Your task to perform on an android device: Search for sushi restaurants on Maps Image 0: 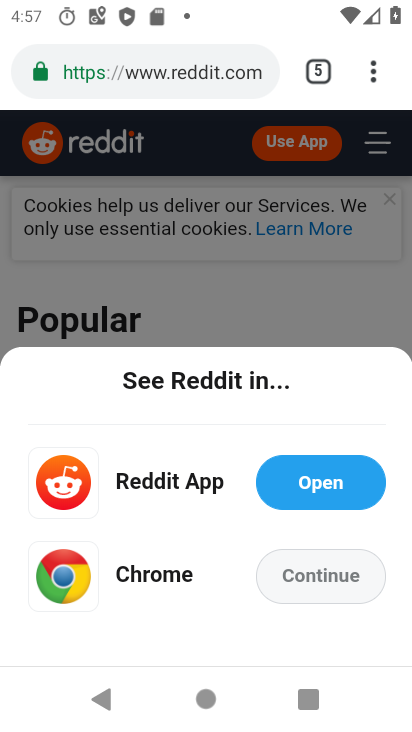
Step 0: press home button
Your task to perform on an android device: Search for sushi restaurants on Maps Image 1: 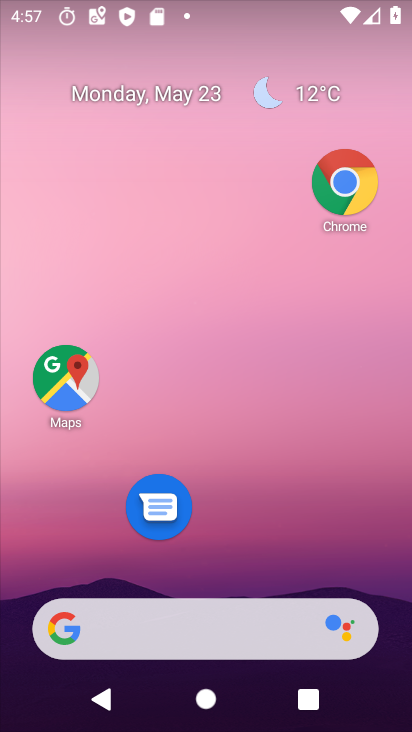
Step 1: click (68, 358)
Your task to perform on an android device: Search for sushi restaurants on Maps Image 2: 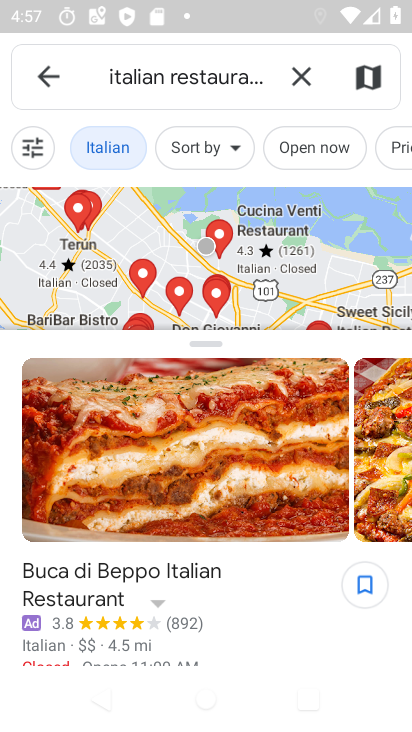
Step 2: click (307, 78)
Your task to perform on an android device: Search for sushi restaurants on Maps Image 3: 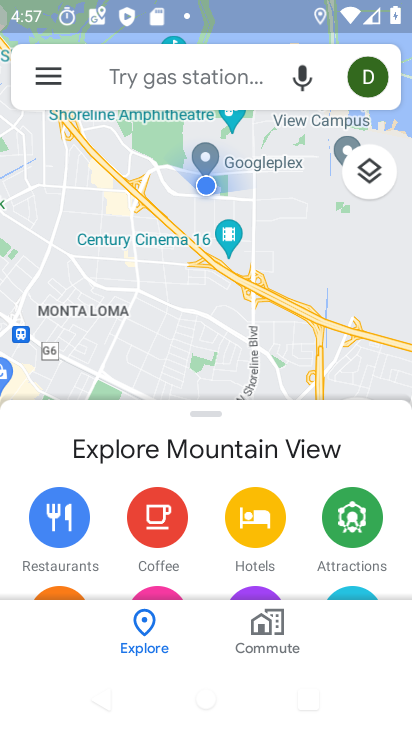
Step 3: click (160, 82)
Your task to perform on an android device: Search for sushi restaurants on Maps Image 4: 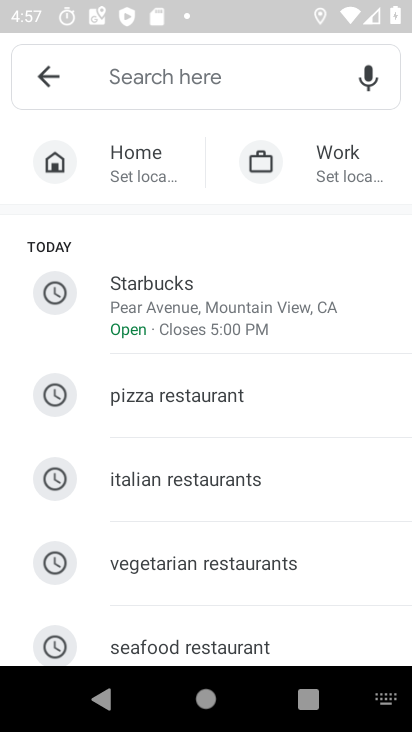
Step 4: type "sushi restaurant"
Your task to perform on an android device: Search for sushi restaurants on Maps Image 5: 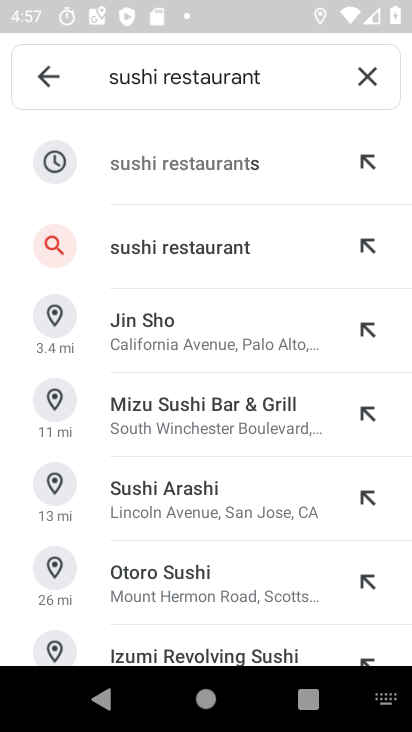
Step 5: click (194, 254)
Your task to perform on an android device: Search for sushi restaurants on Maps Image 6: 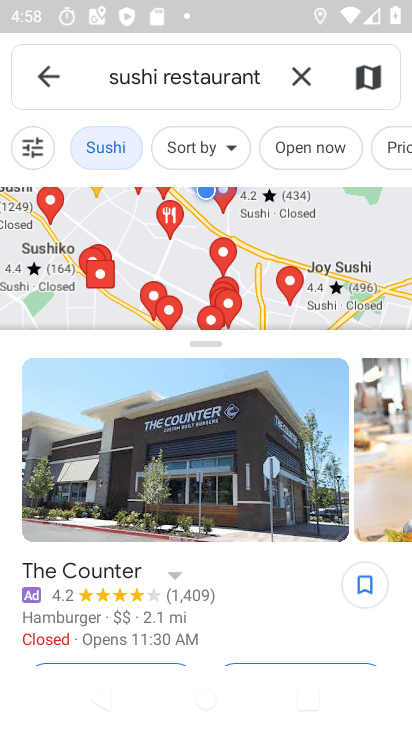
Step 6: task complete